Your task to perform on an android device: see sites visited before in the chrome app Image 0: 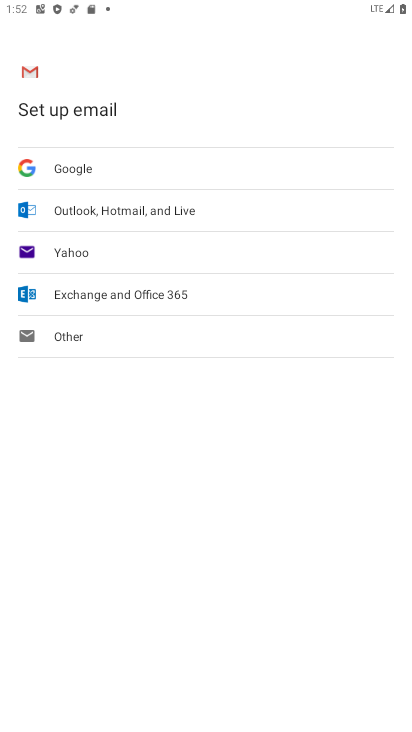
Step 0: press home button
Your task to perform on an android device: see sites visited before in the chrome app Image 1: 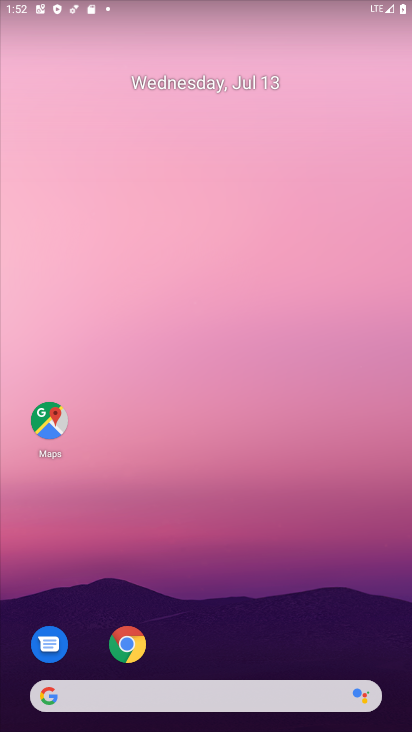
Step 1: drag from (316, 591) to (300, 140)
Your task to perform on an android device: see sites visited before in the chrome app Image 2: 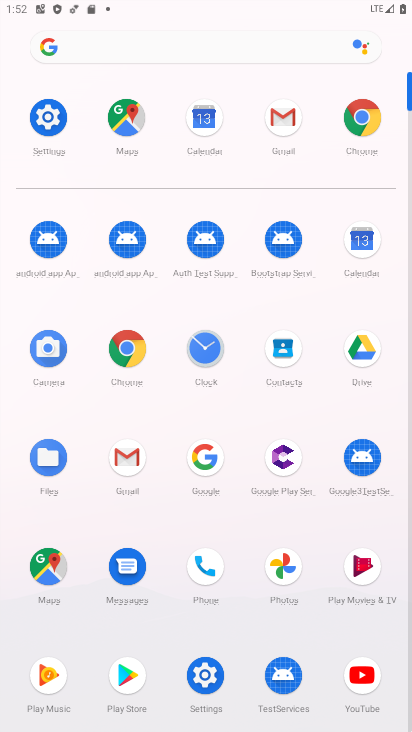
Step 2: click (129, 342)
Your task to perform on an android device: see sites visited before in the chrome app Image 3: 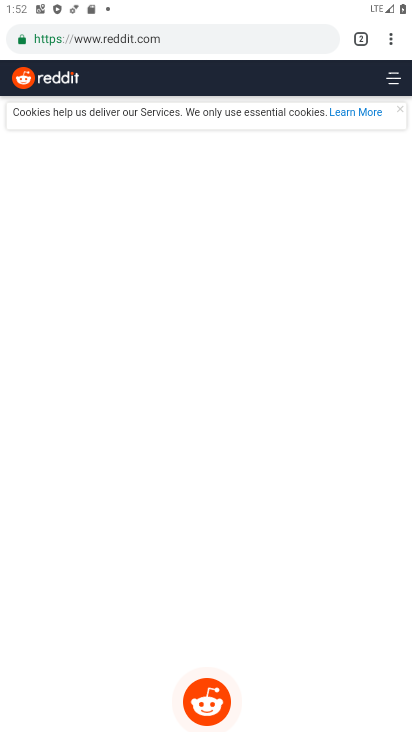
Step 3: task complete